Your task to perform on an android device: show emergency info Image 0: 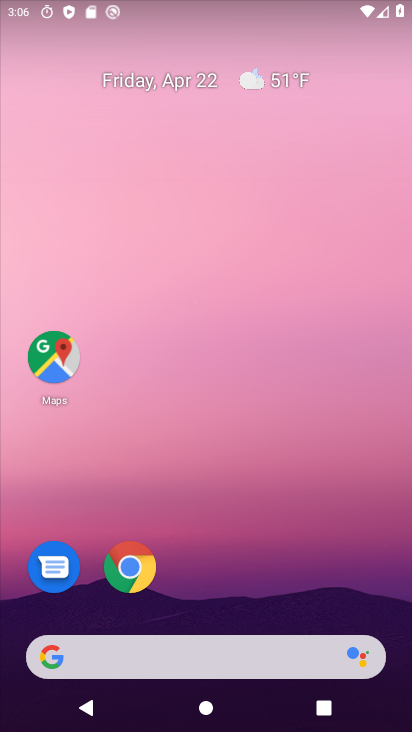
Step 0: drag from (238, 574) to (250, 58)
Your task to perform on an android device: show emergency info Image 1: 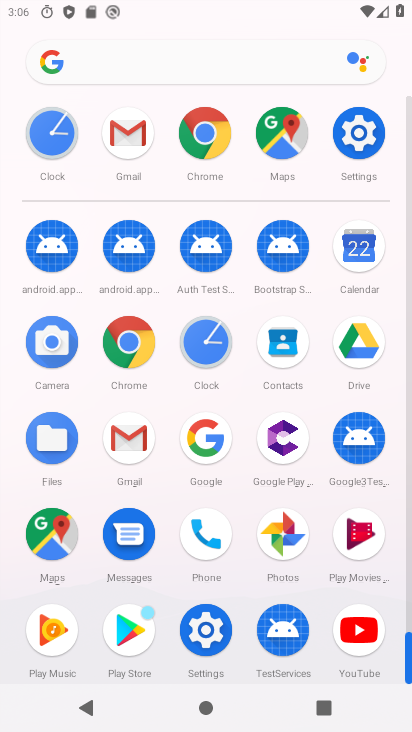
Step 1: click (218, 638)
Your task to perform on an android device: show emergency info Image 2: 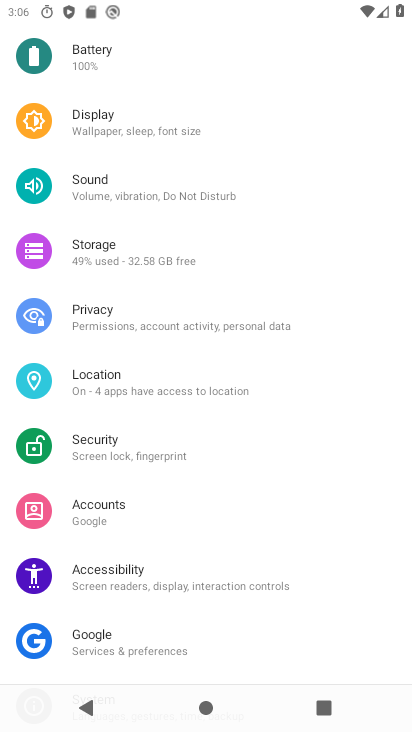
Step 2: drag from (198, 641) to (250, 161)
Your task to perform on an android device: show emergency info Image 3: 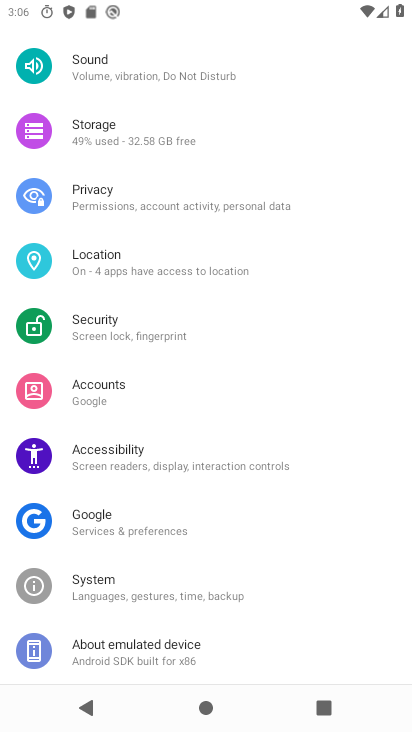
Step 3: click (165, 644)
Your task to perform on an android device: show emergency info Image 4: 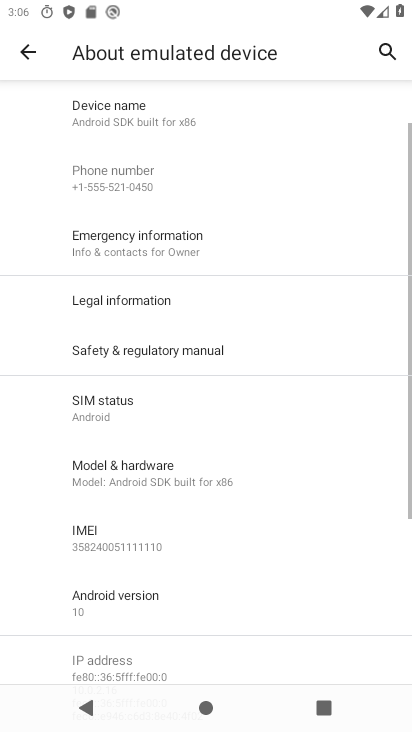
Step 4: click (197, 237)
Your task to perform on an android device: show emergency info Image 5: 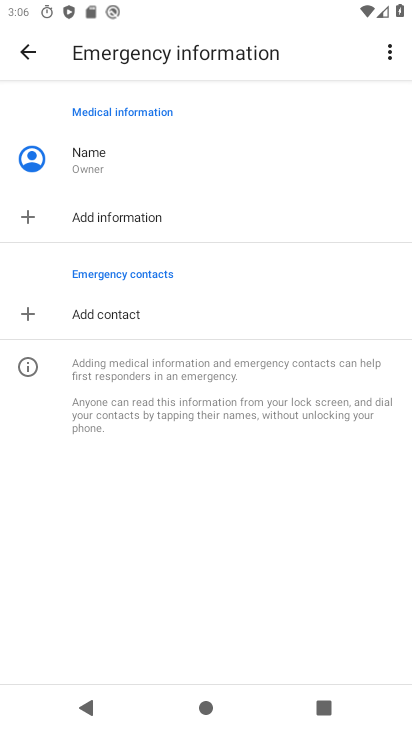
Step 5: task complete